Your task to perform on an android device: Open Youtube and go to the subscriptions tab Image 0: 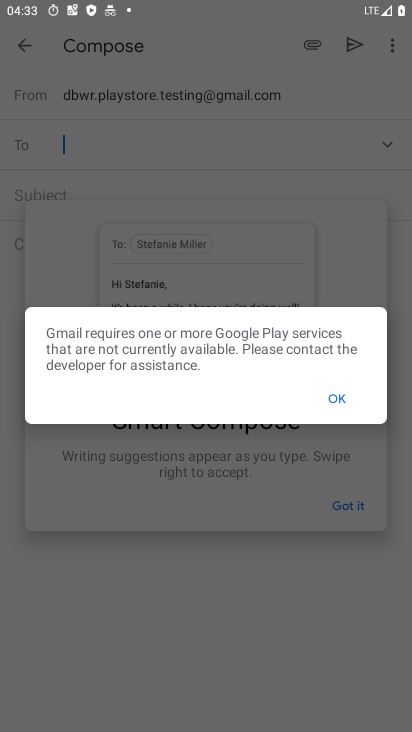
Step 0: press home button
Your task to perform on an android device: Open Youtube and go to the subscriptions tab Image 1: 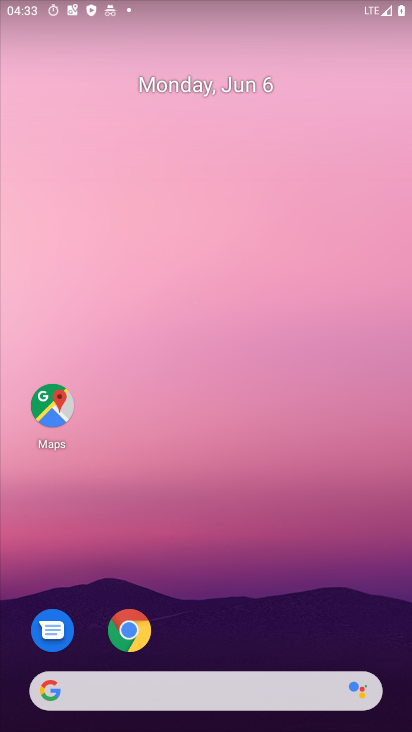
Step 1: drag from (291, 581) to (151, 60)
Your task to perform on an android device: Open Youtube and go to the subscriptions tab Image 2: 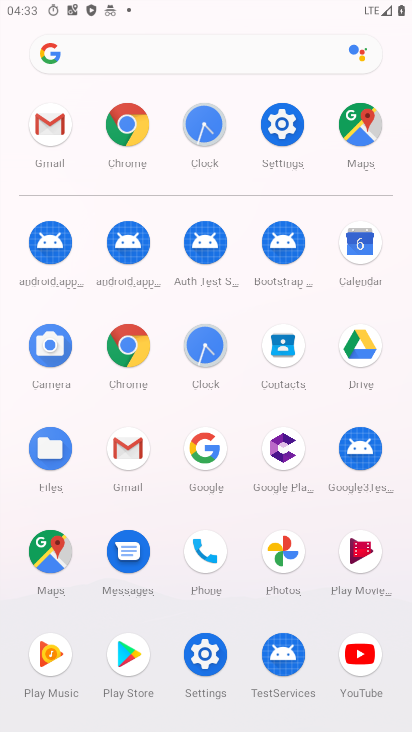
Step 2: click (368, 654)
Your task to perform on an android device: Open Youtube and go to the subscriptions tab Image 3: 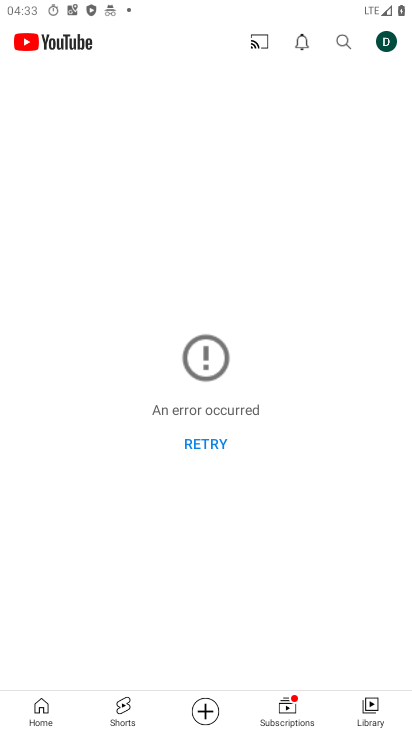
Step 3: click (288, 706)
Your task to perform on an android device: Open Youtube and go to the subscriptions tab Image 4: 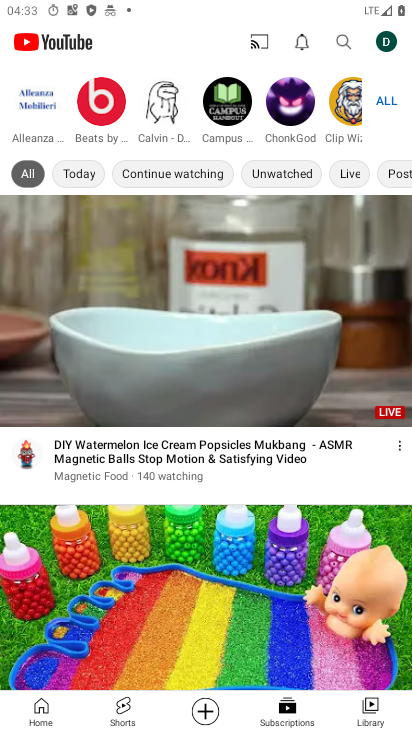
Step 4: task complete